Your task to perform on an android device: all mails in gmail Image 0: 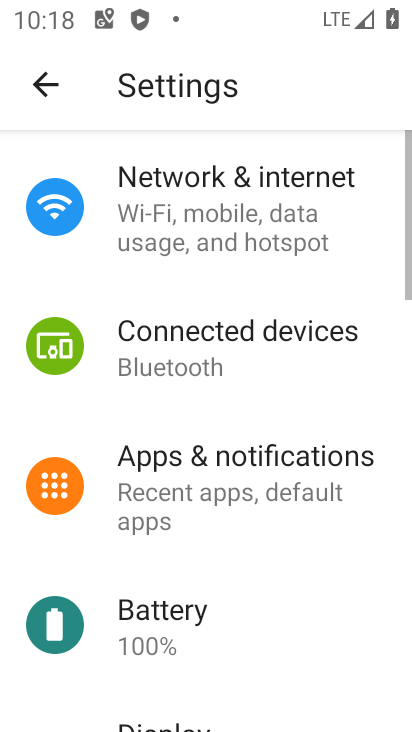
Step 0: press home button
Your task to perform on an android device: all mails in gmail Image 1: 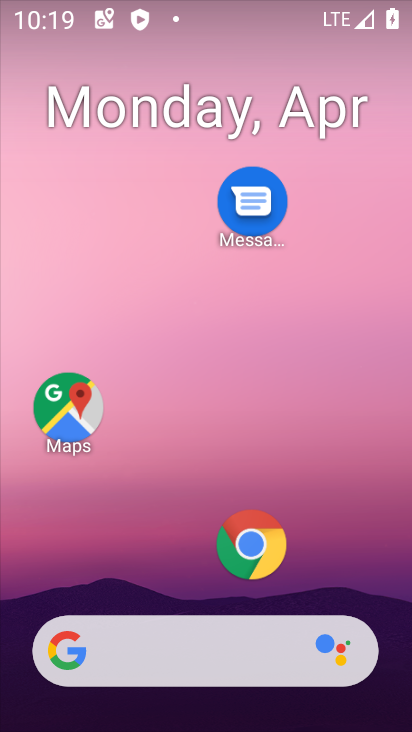
Step 1: drag from (212, 186) to (215, 7)
Your task to perform on an android device: all mails in gmail Image 2: 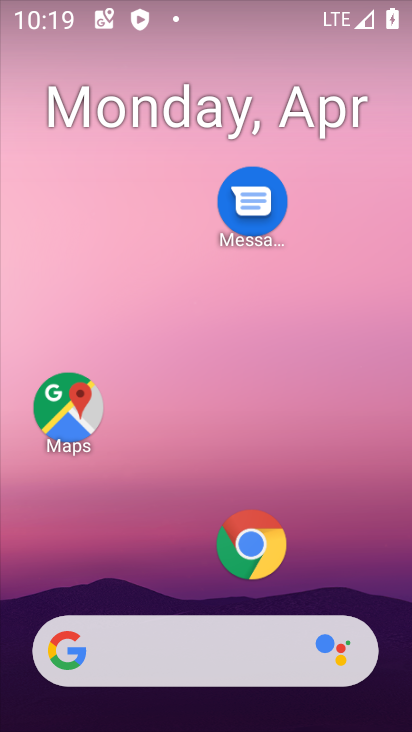
Step 2: drag from (192, 569) to (196, 10)
Your task to perform on an android device: all mails in gmail Image 3: 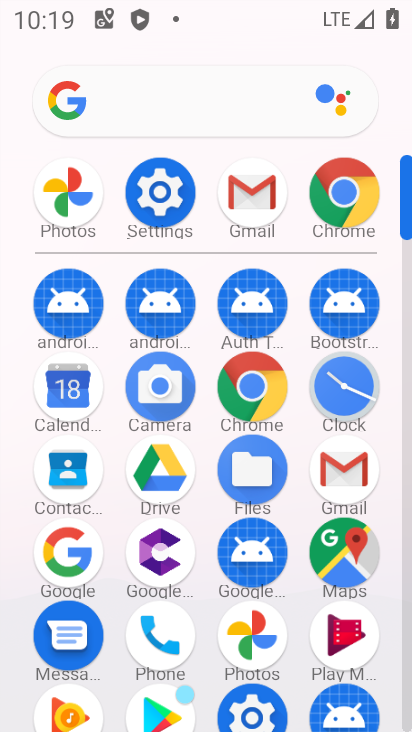
Step 3: click (340, 462)
Your task to perform on an android device: all mails in gmail Image 4: 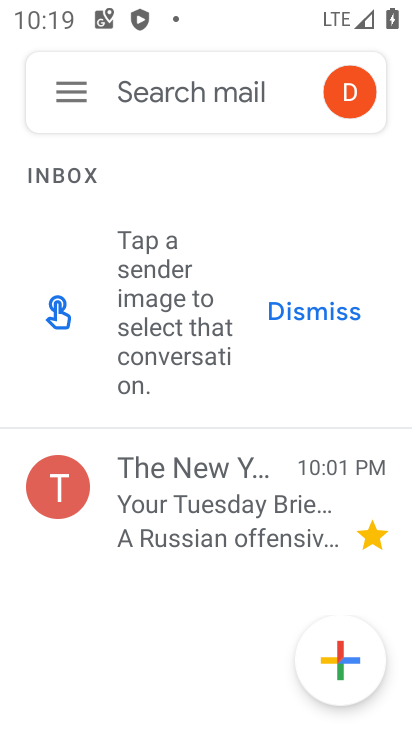
Step 4: click (72, 89)
Your task to perform on an android device: all mails in gmail Image 5: 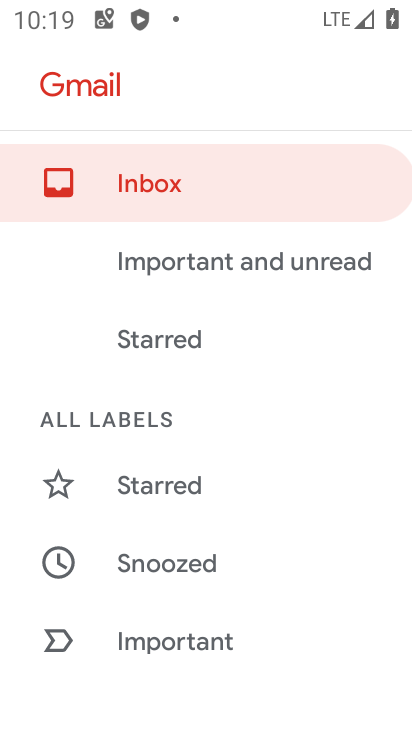
Step 5: drag from (97, 629) to (107, 119)
Your task to perform on an android device: all mails in gmail Image 6: 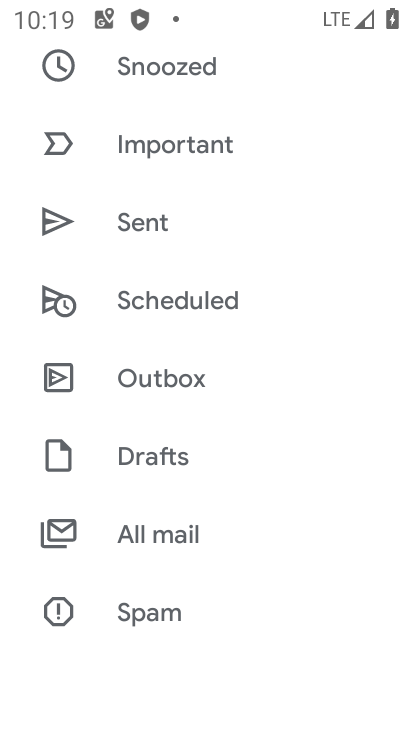
Step 6: click (100, 528)
Your task to perform on an android device: all mails in gmail Image 7: 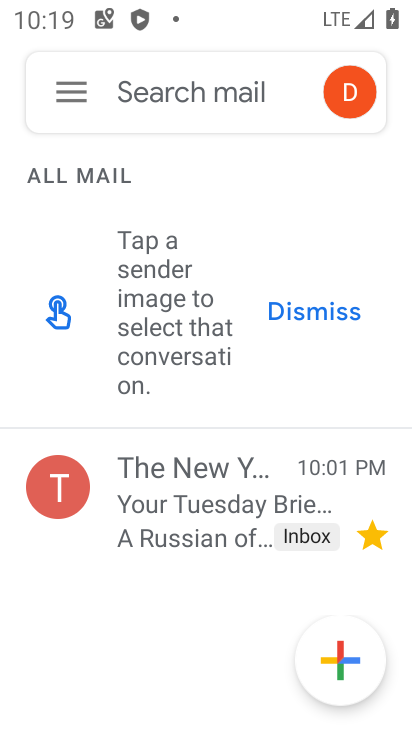
Step 7: task complete